Your task to perform on an android device: visit the assistant section in the google photos Image 0: 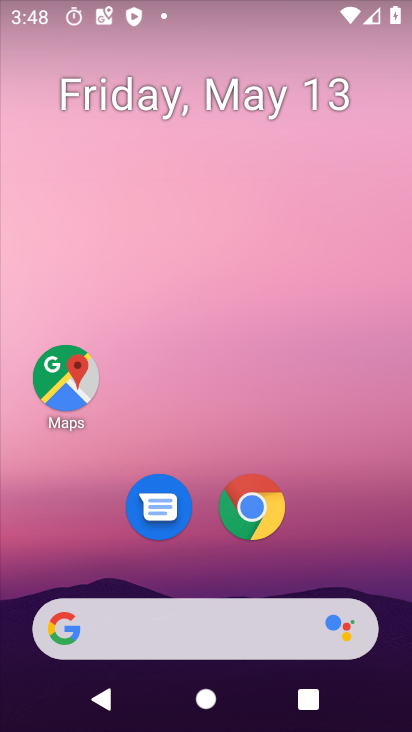
Step 0: drag from (316, 560) to (262, 137)
Your task to perform on an android device: visit the assistant section in the google photos Image 1: 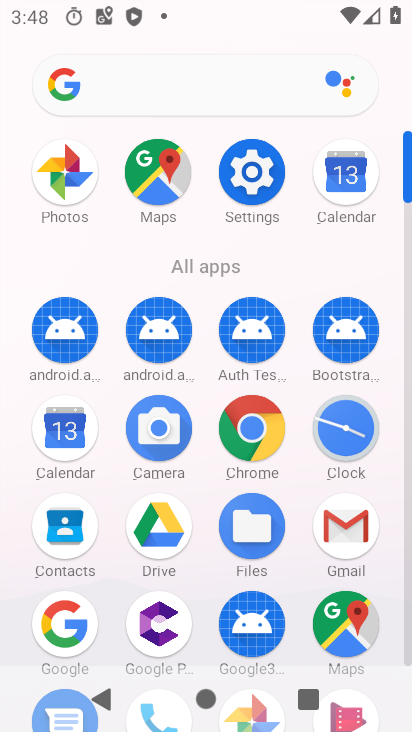
Step 1: click (75, 180)
Your task to perform on an android device: visit the assistant section in the google photos Image 2: 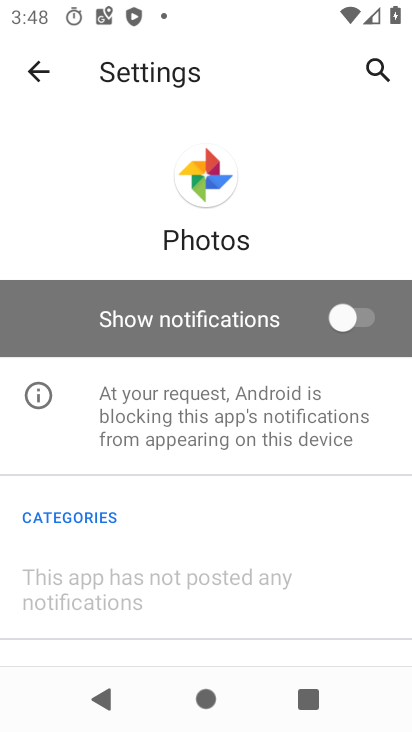
Step 2: click (35, 70)
Your task to perform on an android device: visit the assistant section in the google photos Image 3: 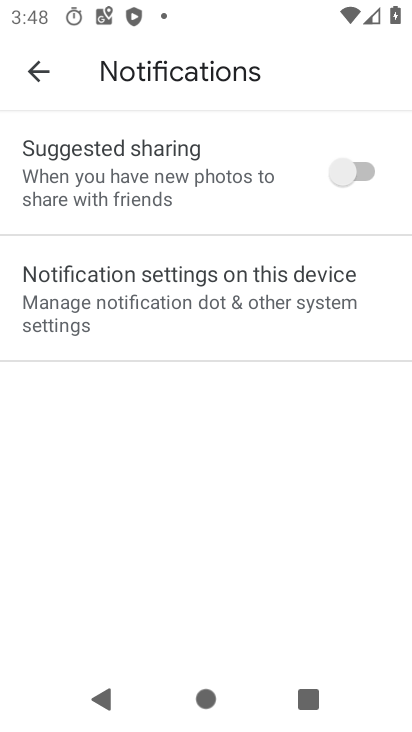
Step 3: click (35, 69)
Your task to perform on an android device: visit the assistant section in the google photos Image 4: 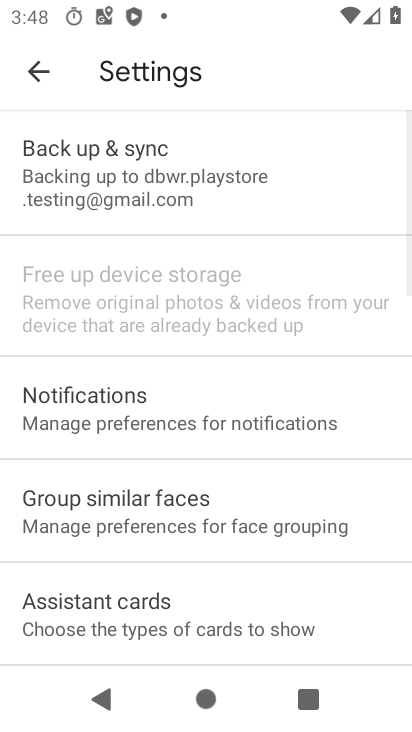
Step 4: click (47, 66)
Your task to perform on an android device: visit the assistant section in the google photos Image 5: 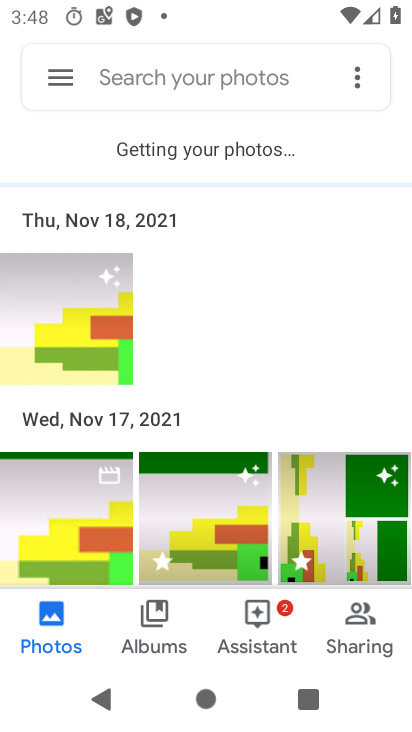
Step 5: click (233, 611)
Your task to perform on an android device: visit the assistant section in the google photos Image 6: 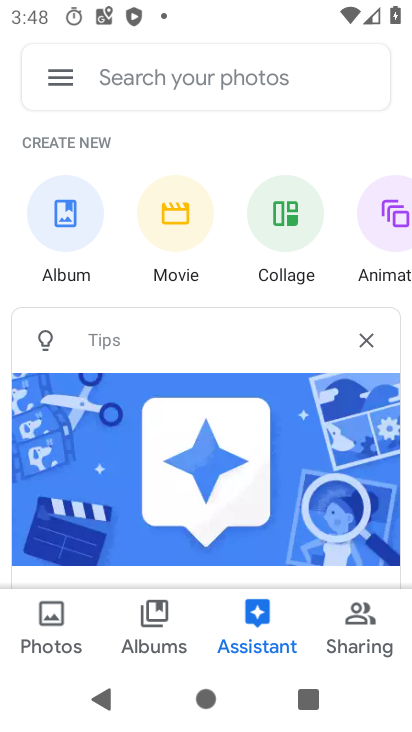
Step 6: task complete